Your task to perform on an android device: Play the last video I watched on Youtube Image 0: 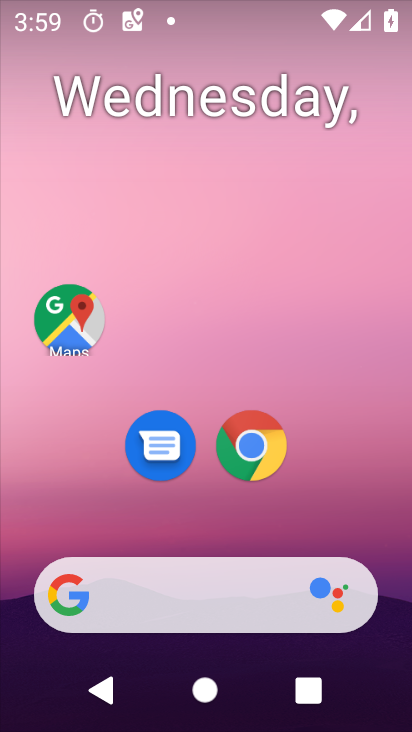
Step 0: drag from (228, 523) to (167, 75)
Your task to perform on an android device: Play the last video I watched on Youtube Image 1: 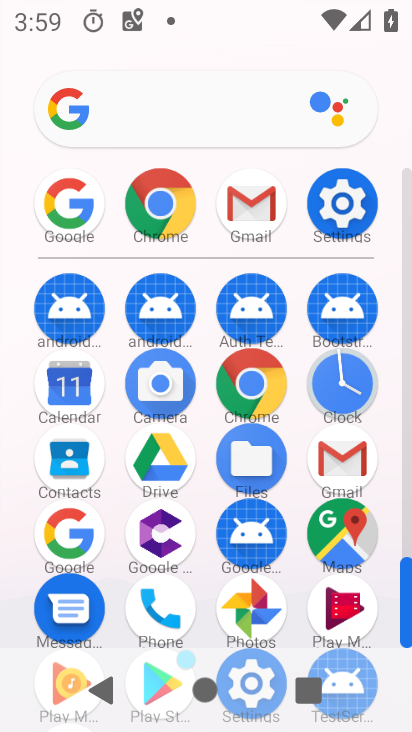
Step 1: drag from (290, 550) to (269, 119)
Your task to perform on an android device: Play the last video I watched on Youtube Image 2: 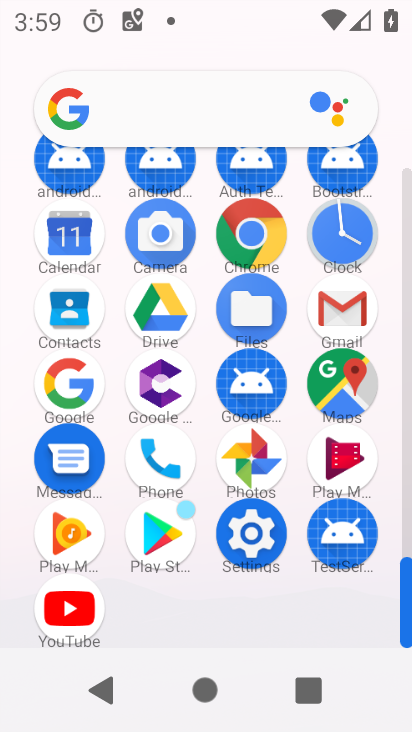
Step 2: click (71, 609)
Your task to perform on an android device: Play the last video I watched on Youtube Image 3: 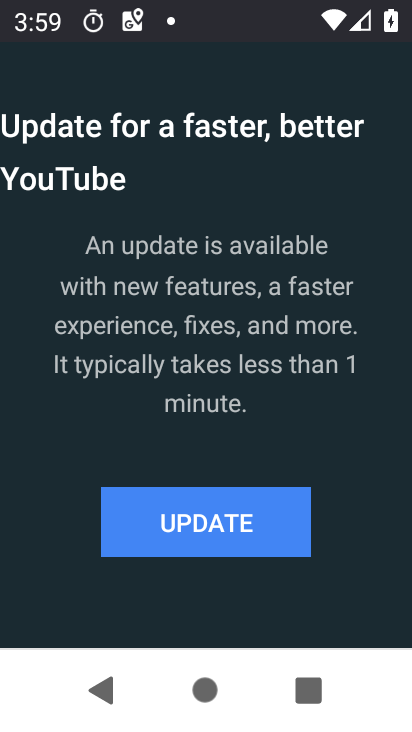
Step 3: click (200, 517)
Your task to perform on an android device: Play the last video I watched on Youtube Image 4: 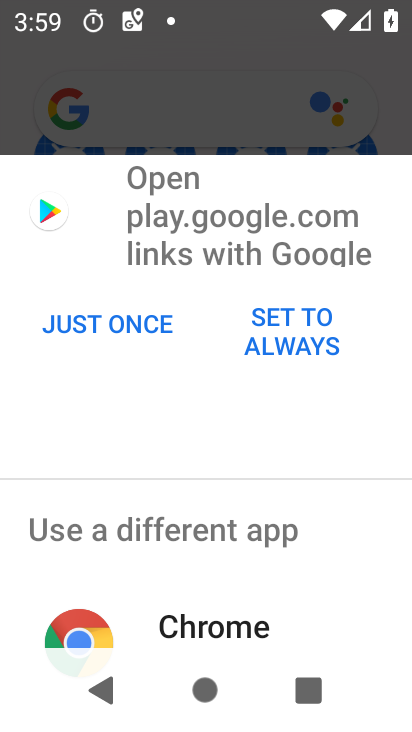
Step 4: drag from (220, 552) to (250, 98)
Your task to perform on an android device: Play the last video I watched on Youtube Image 5: 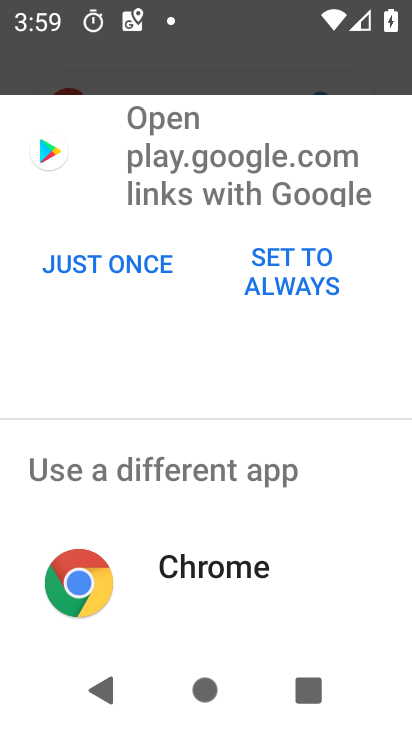
Step 5: click (103, 266)
Your task to perform on an android device: Play the last video I watched on Youtube Image 6: 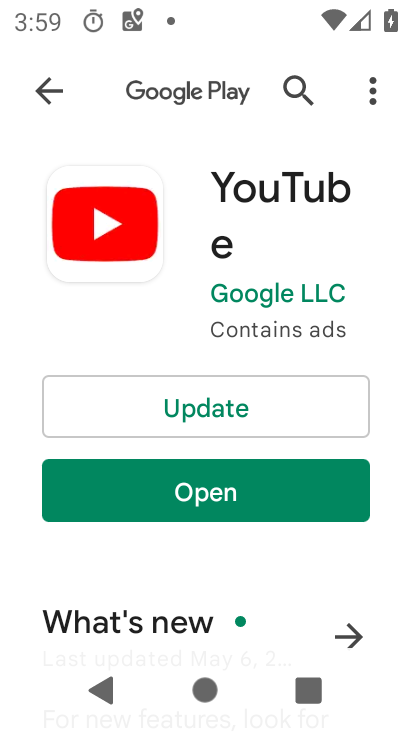
Step 6: click (199, 405)
Your task to perform on an android device: Play the last video I watched on Youtube Image 7: 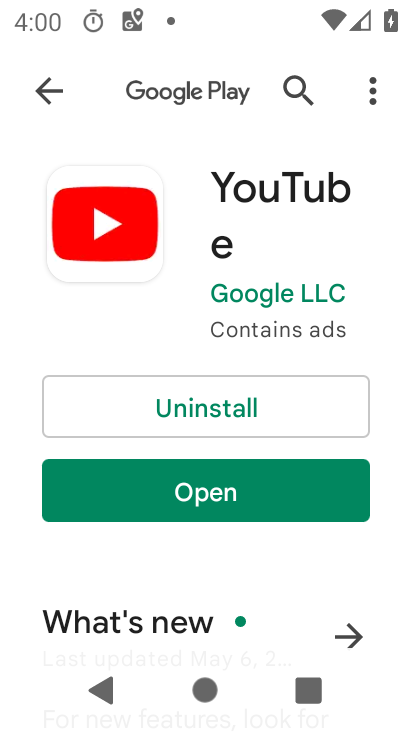
Step 7: click (226, 493)
Your task to perform on an android device: Play the last video I watched on Youtube Image 8: 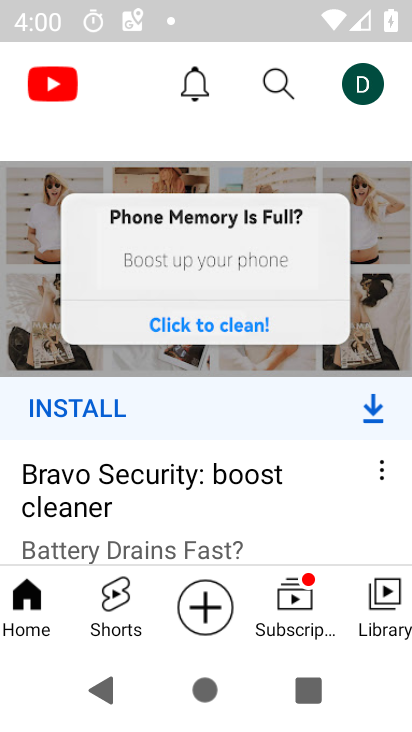
Step 8: click (262, 87)
Your task to perform on an android device: Play the last video I watched on Youtube Image 9: 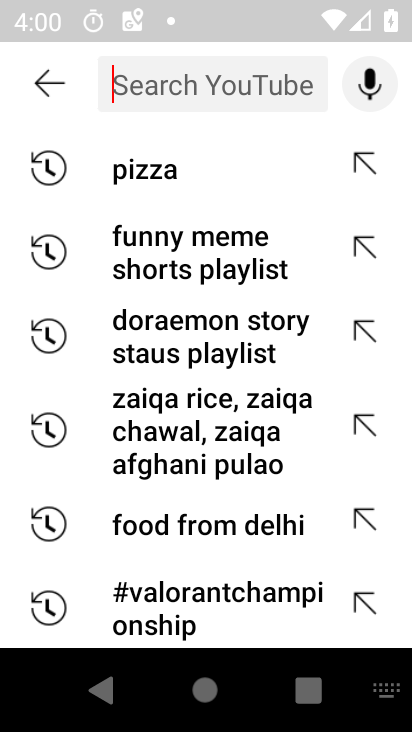
Step 9: task complete